Your task to perform on an android device: move a message to another label in the gmail app Image 0: 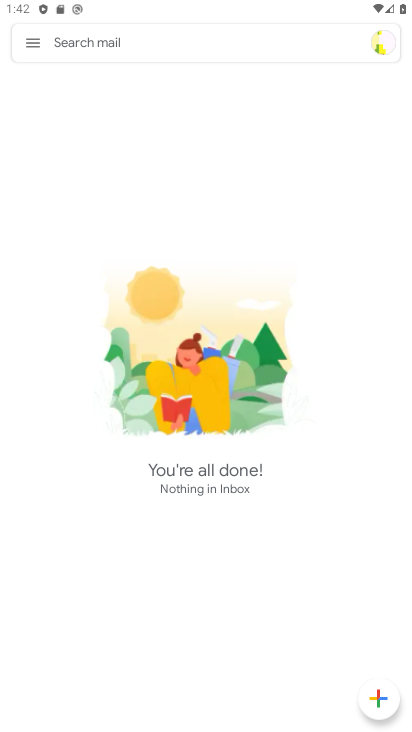
Step 0: task impossible